Your task to perform on an android device: change the clock display to show seconds Image 0: 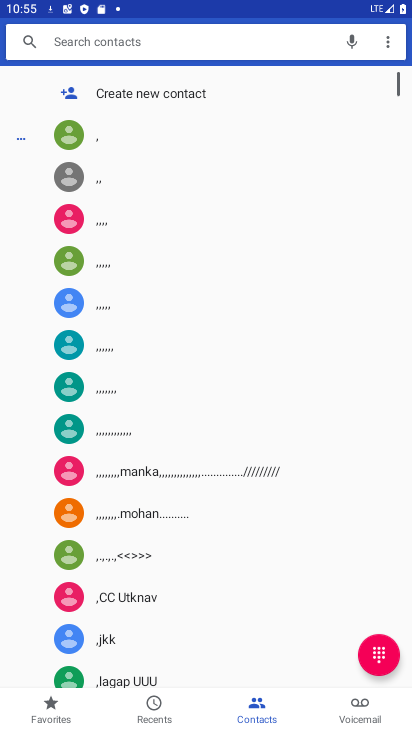
Step 0: press home button
Your task to perform on an android device: change the clock display to show seconds Image 1: 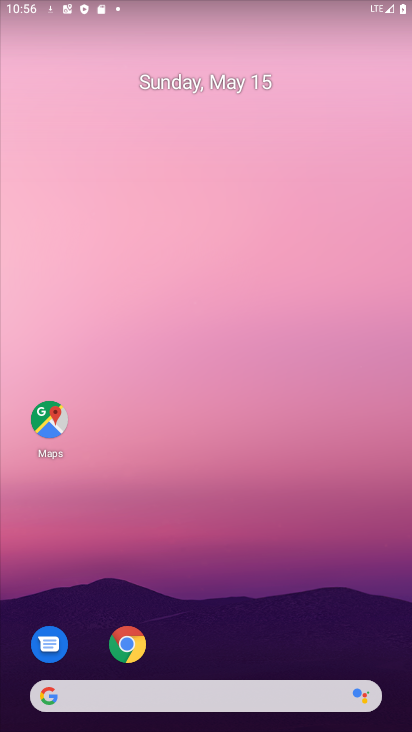
Step 1: drag from (287, 727) to (312, 291)
Your task to perform on an android device: change the clock display to show seconds Image 2: 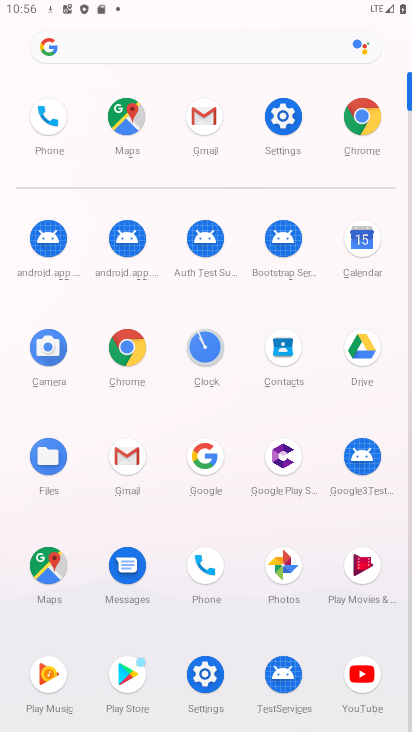
Step 2: click (208, 342)
Your task to perform on an android device: change the clock display to show seconds Image 3: 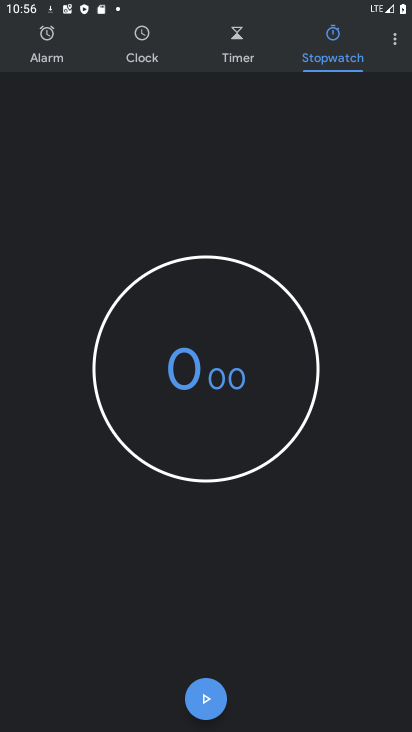
Step 3: click (389, 52)
Your task to perform on an android device: change the clock display to show seconds Image 4: 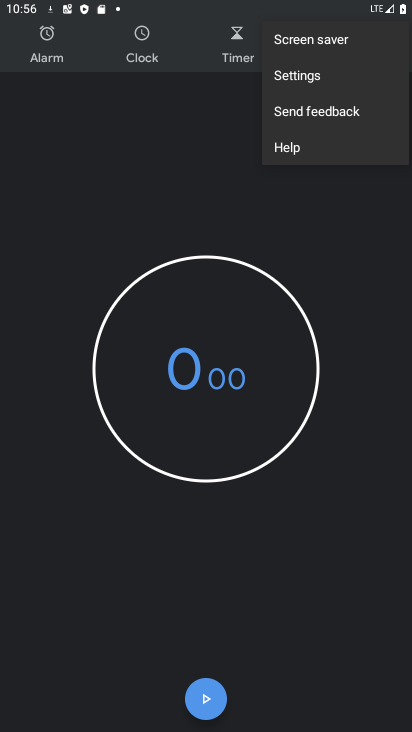
Step 4: click (317, 75)
Your task to perform on an android device: change the clock display to show seconds Image 5: 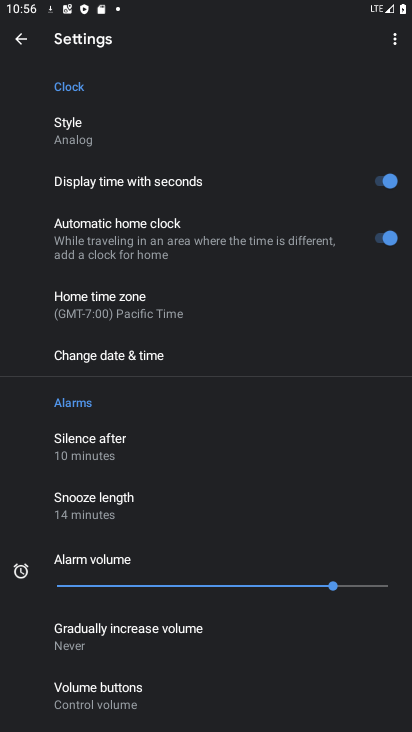
Step 5: task complete